Your task to perform on an android device: Open Google Chrome and open the bookmarks view Image 0: 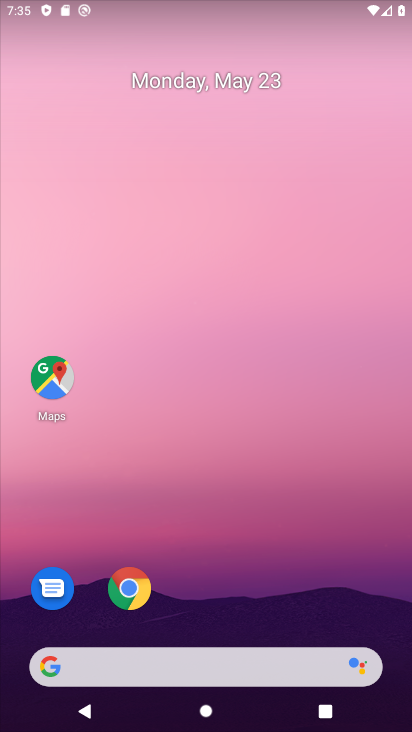
Step 0: click (133, 588)
Your task to perform on an android device: Open Google Chrome and open the bookmarks view Image 1: 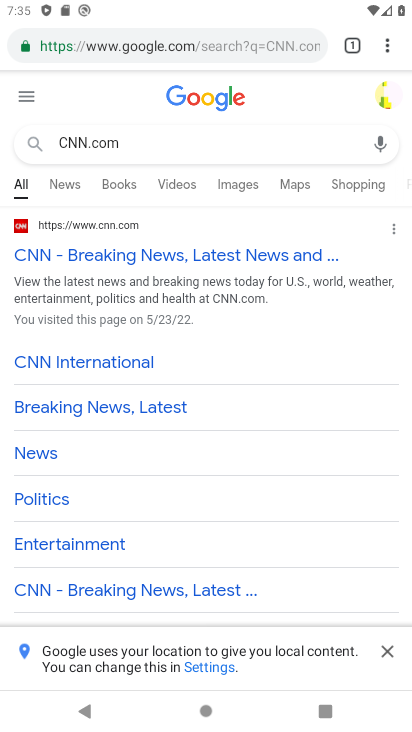
Step 1: click (383, 34)
Your task to perform on an android device: Open Google Chrome and open the bookmarks view Image 2: 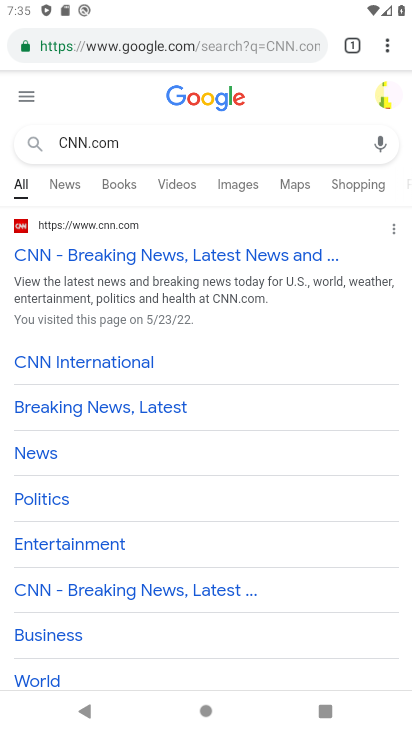
Step 2: click (384, 42)
Your task to perform on an android device: Open Google Chrome and open the bookmarks view Image 3: 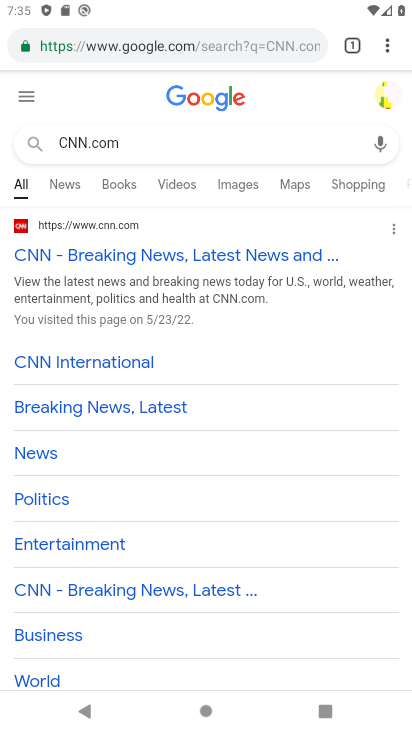
Step 3: click (385, 44)
Your task to perform on an android device: Open Google Chrome and open the bookmarks view Image 4: 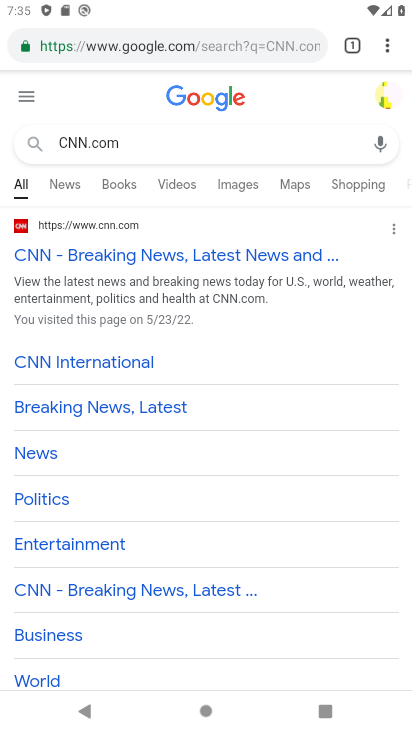
Step 4: click (385, 44)
Your task to perform on an android device: Open Google Chrome and open the bookmarks view Image 5: 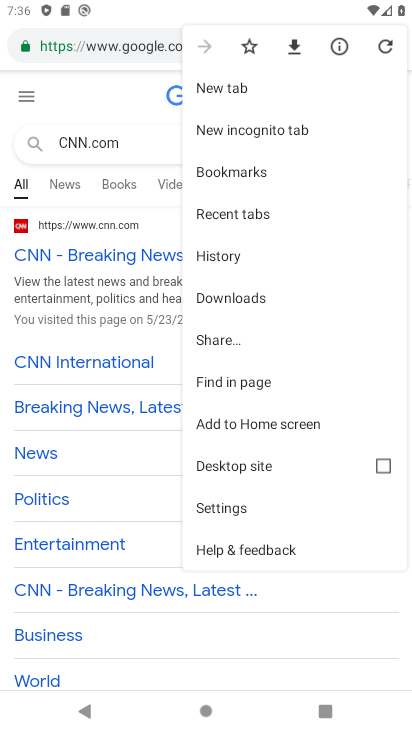
Step 5: click (233, 165)
Your task to perform on an android device: Open Google Chrome and open the bookmarks view Image 6: 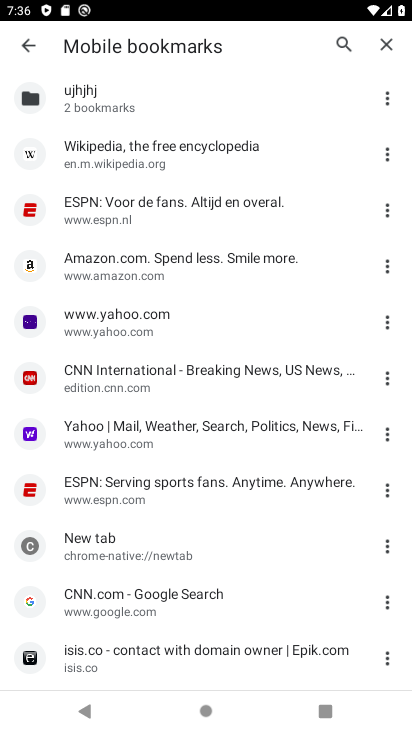
Step 6: click (81, 321)
Your task to perform on an android device: Open Google Chrome and open the bookmarks view Image 7: 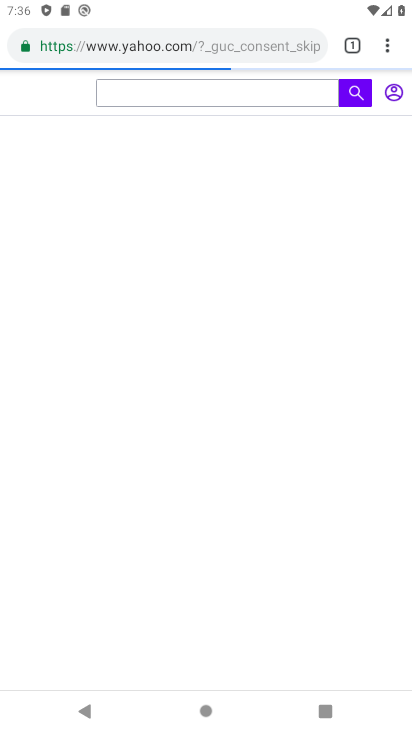
Step 7: task complete